Your task to perform on an android device: Search for vegetarian restaurants on Maps Image 0: 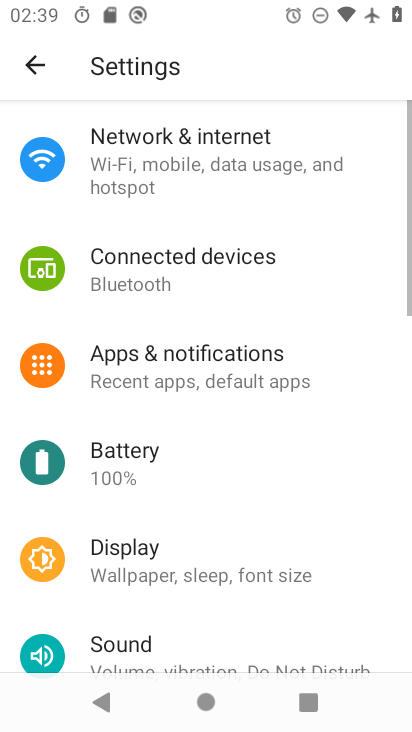
Step 0: press home button
Your task to perform on an android device: Search for vegetarian restaurants on Maps Image 1: 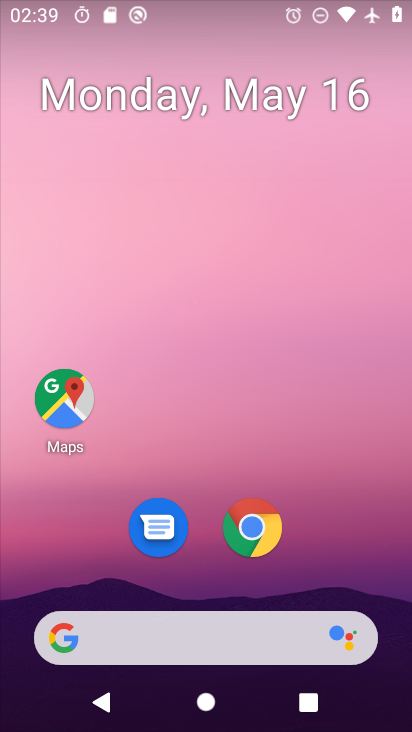
Step 1: click (75, 411)
Your task to perform on an android device: Search for vegetarian restaurants on Maps Image 2: 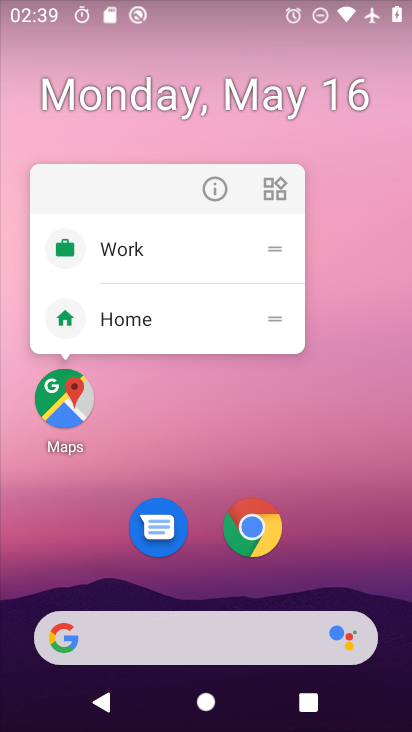
Step 2: click (64, 411)
Your task to perform on an android device: Search for vegetarian restaurants on Maps Image 3: 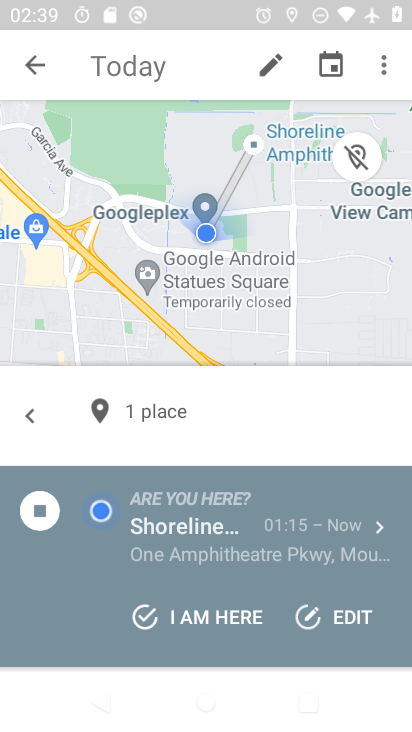
Step 3: click (33, 62)
Your task to perform on an android device: Search for vegetarian restaurants on Maps Image 4: 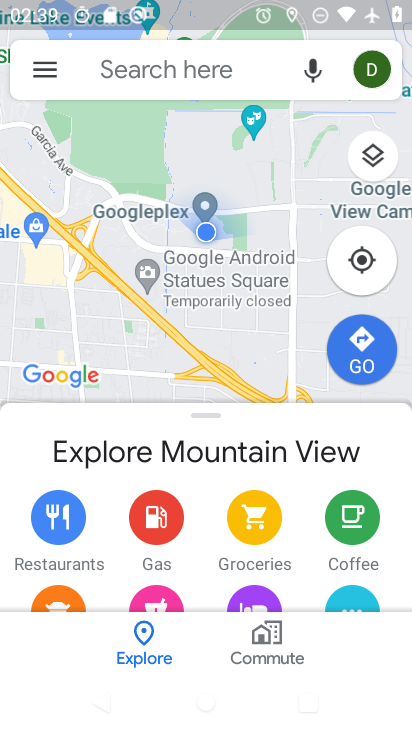
Step 4: click (175, 73)
Your task to perform on an android device: Search for vegetarian restaurants on Maps Image 5: 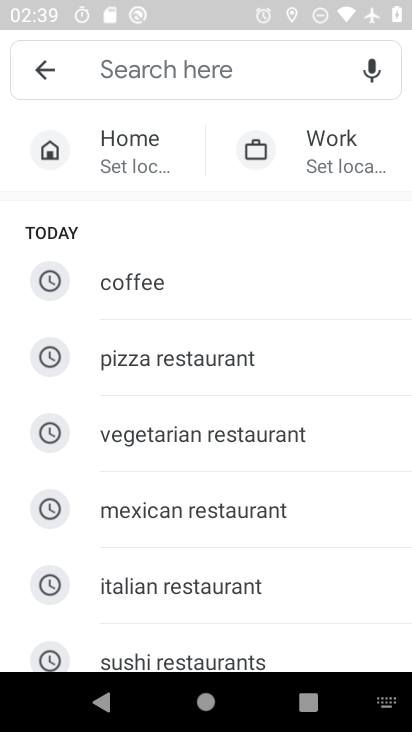
Step 5: click (170, 430)
Your task to perform on an android device: Search for vegetarian restaurants on Maps Image 6: 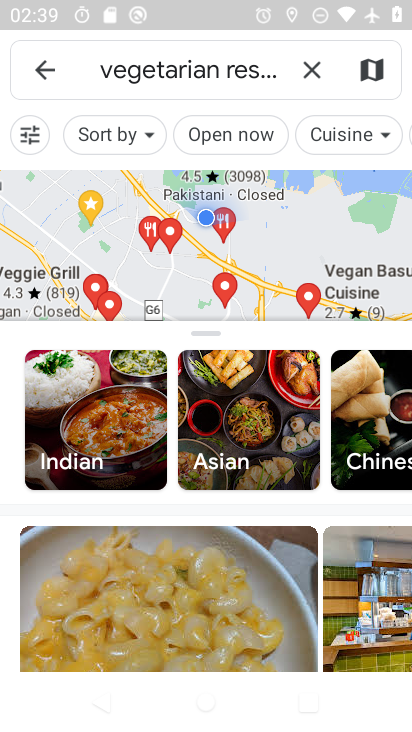
Step 6: task complete